Your task to perform on an android device: Turn off the flashlight Image 0: 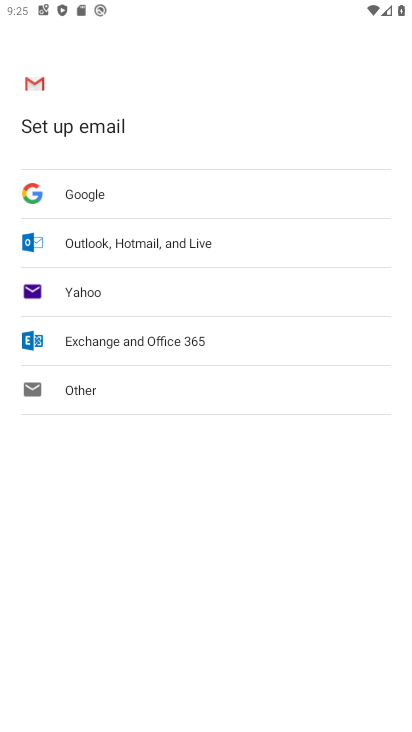
Step 0: press home button
Your task to perform on an android device: Turn off the flashlight Image 1: 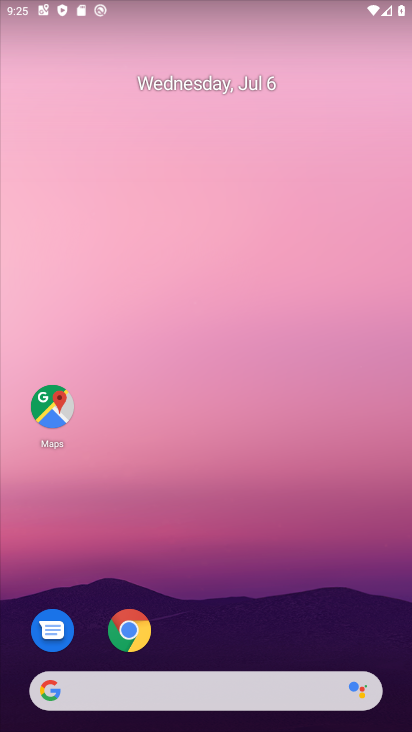
Step 1: drag from (240, 15) to (252, 396)
Your task to perform on an android device: Turn off the flashlight Image 2: 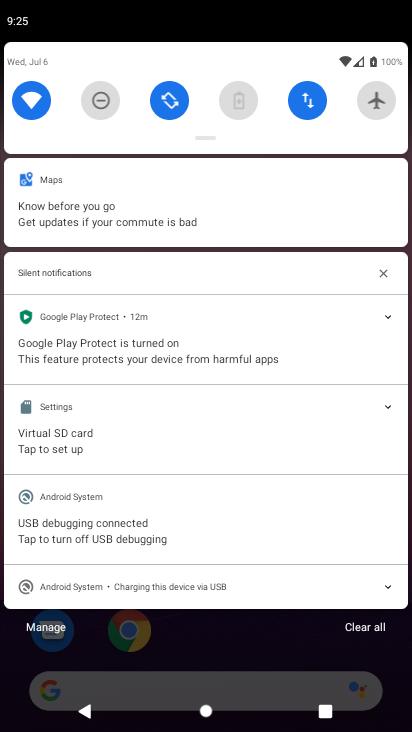
Step 2: drag from (204, 140) to (215, 463)
Your task to perform on an android device: Turn off the flashlight Image 3: 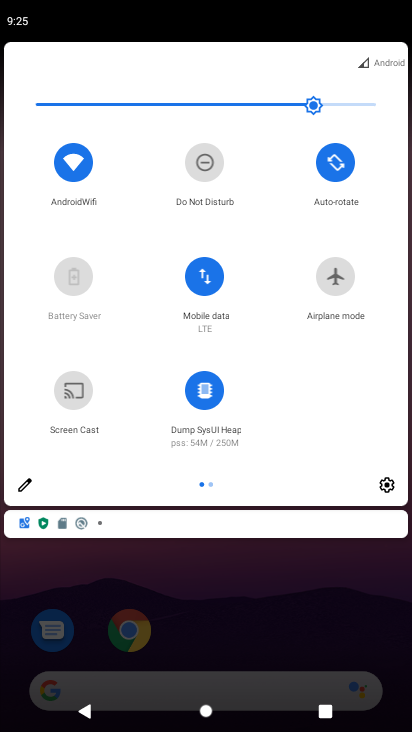
Step 3: click (22, 485)
Your task to perform on an android device: Turn off the flashlight Image 4: 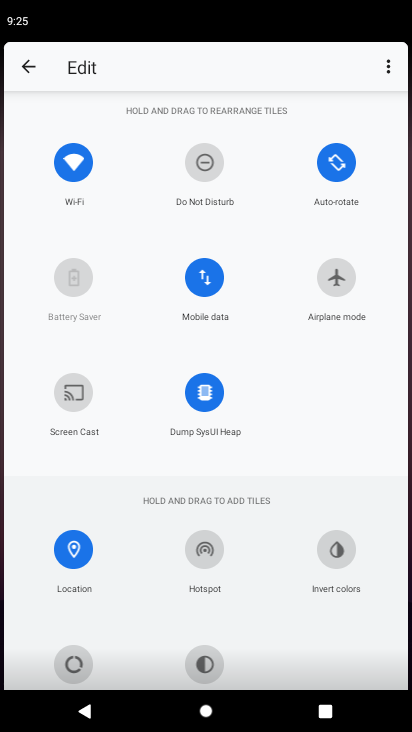
Step 4: task complete